Your task to perform on an android device: Open notification settings Image 0: 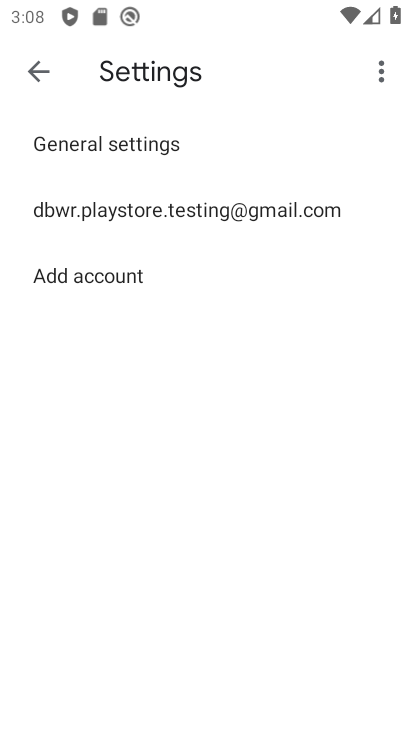
Step 0: press home button
Your task to perform on an android device: Open notification settings Image 1: 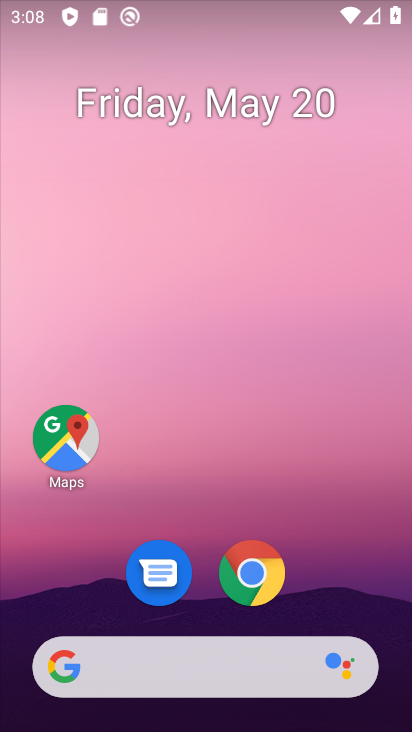
Step 1: drag from (150, 617) to (68, 14)
Your task to perform on an android device: Open notification settings Image 2: 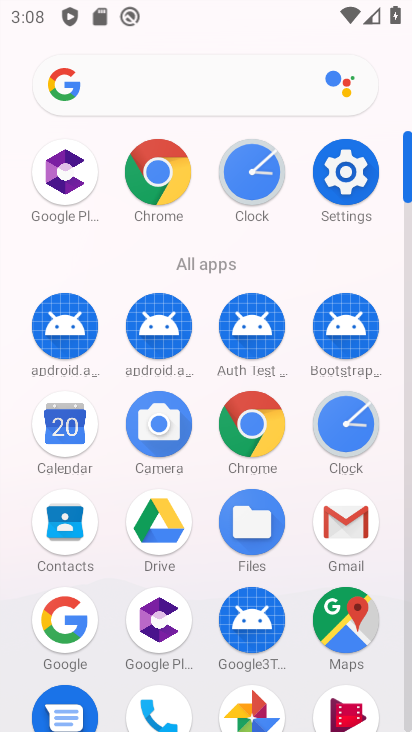
Step 2: click (324, 182)
Your task to perform on an android device: Open notification settings Image 3: 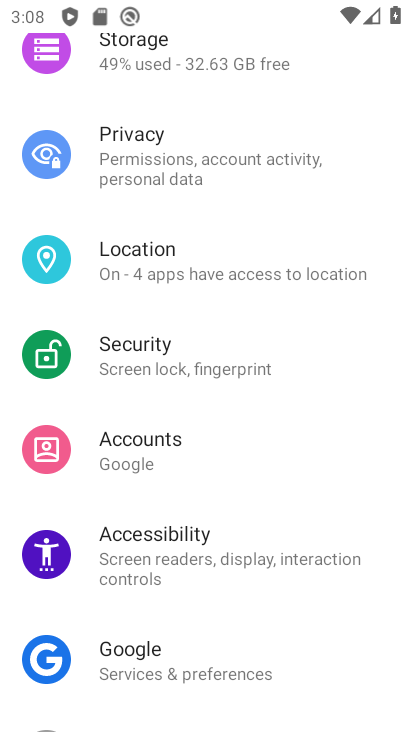
Step 3: drag from (172, 288) to (144, 730)
Your task to perform on an android device: Open notification settings Image 4: 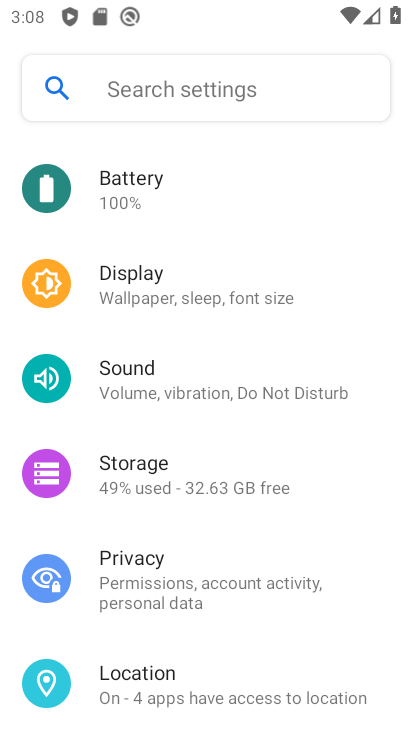
Step 4: drag from (157, 553) to (117, 717)
Your task to perform on an android device: Open notification settings Image 5: 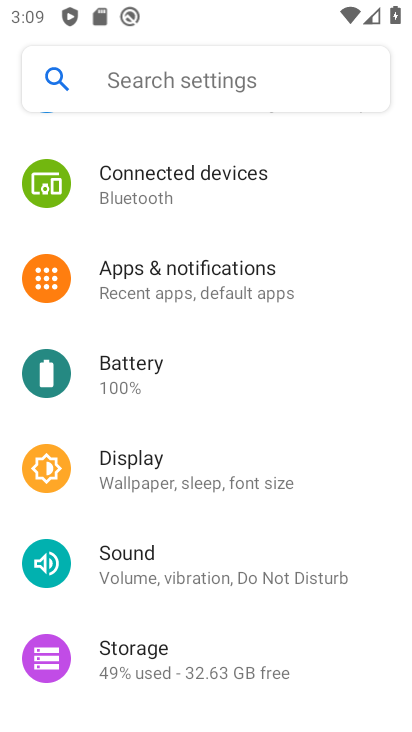
Step 5: click (111, 308)
Your task to perform on an android device: Open notification settings Image 6: 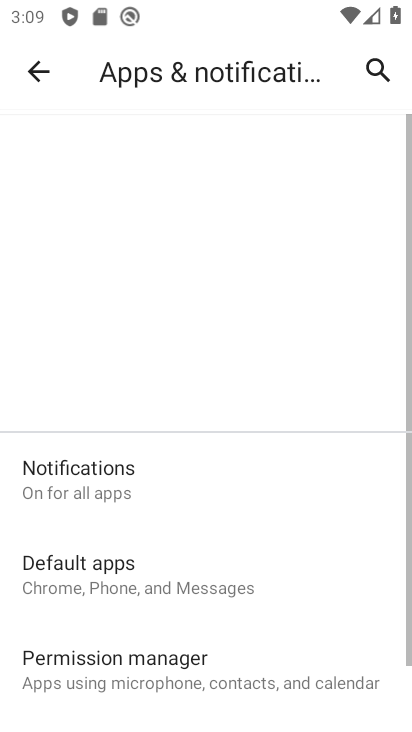
Step 6: click (141, 459)
Your task to perform on an android device: Open notification settings Image 7: 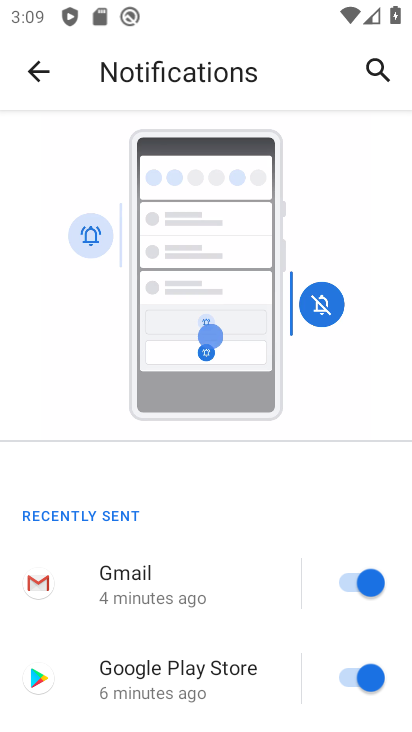
Step 7: task complete